Your task to perform on an android device: make emails show in primary in the gmail app Image 0: 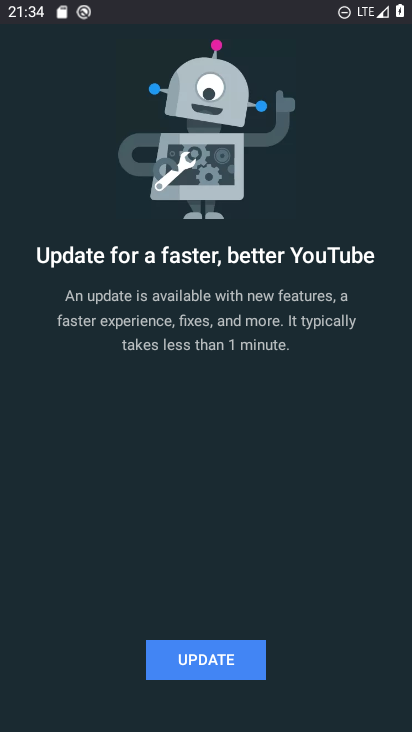
Step 0: drag from (192, 14) to (133, 615)
Your task to perform on an android device: make emails show in primary in the gmail app Image 1: 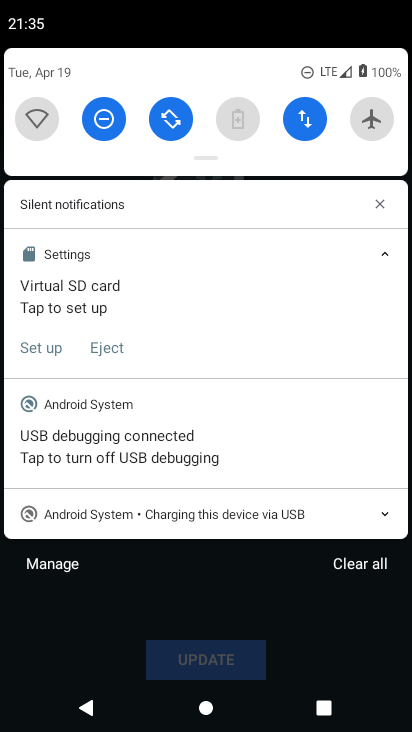
Step 1: press home button
Your task to perform on an android device: make emails show in primary in the gmail app Image 2: 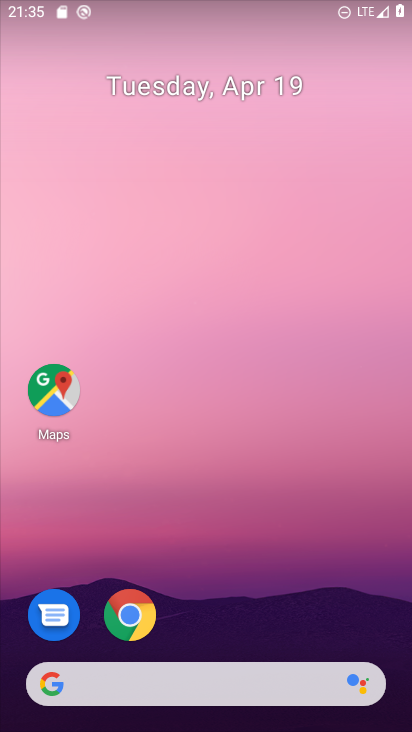
Step 2: drag from (234, 638) to (198, 146)
Your task to perform on an android device: make emails show in primary in the gmail app Image 3: 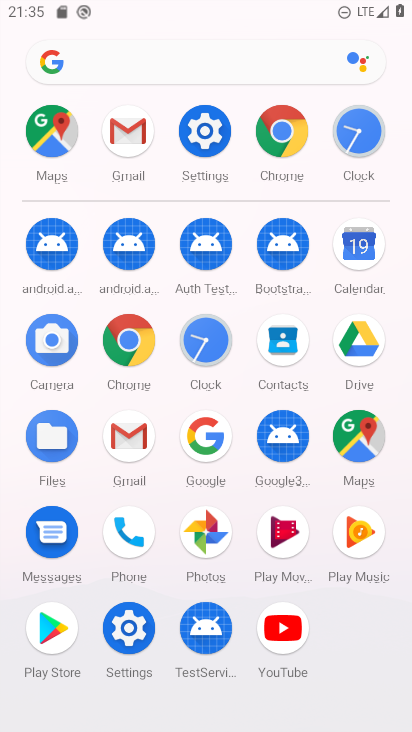
Step 3: click (127, 123)
Your task to perform on an android device: make emails show in primary in the gmail app Image 4: 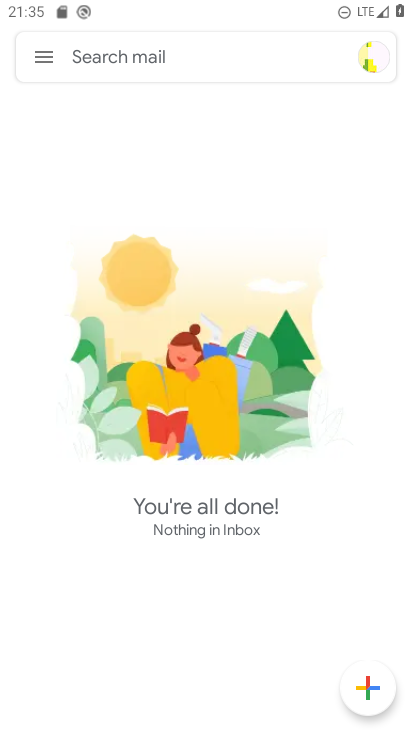
Step 4: click (36, 69)
Your task to perform on an android device: make emails show in primary in the gmail app Image 5: 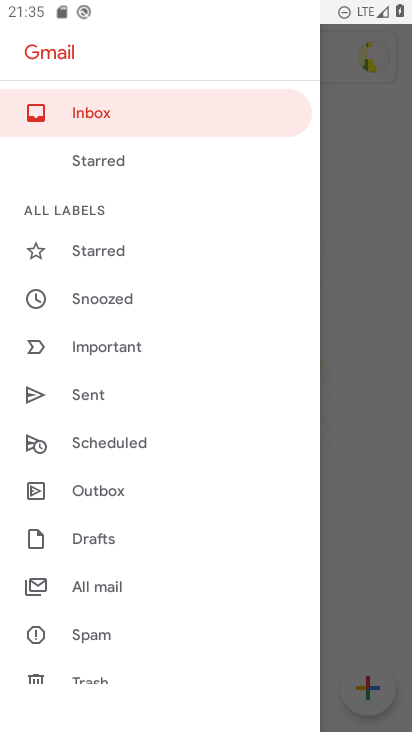
Step 5: task complete